Your task to perform on an android device: find which apps use the phone's location Image 0: 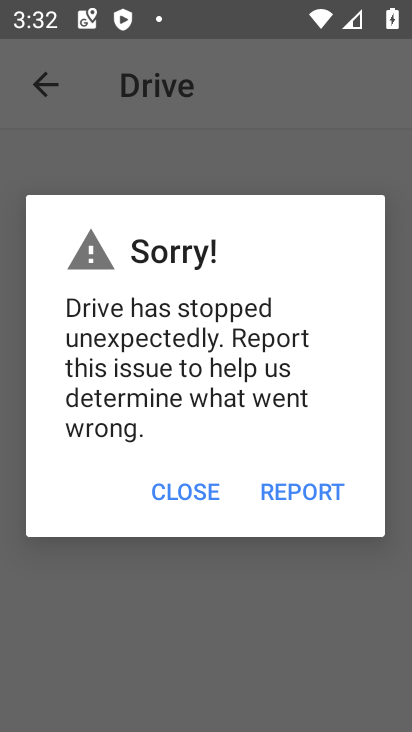
Step 0: press home button
Your task to perform on an android device: find which apps use the phone's location Image 1: 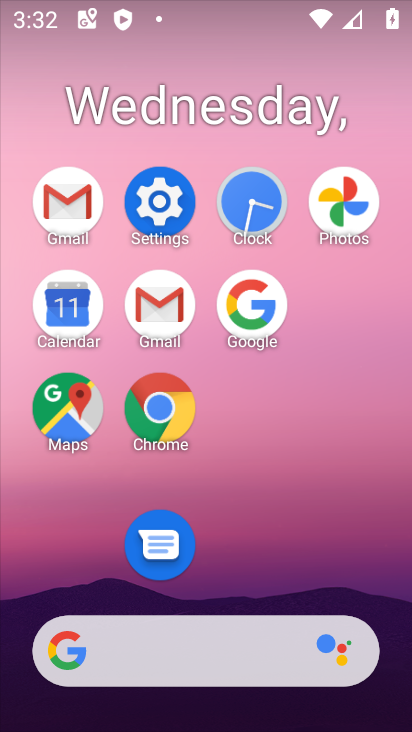
Step 1: click (157, 199)
Your task to perform on an android device: find which apps use the phone's location Image 2: 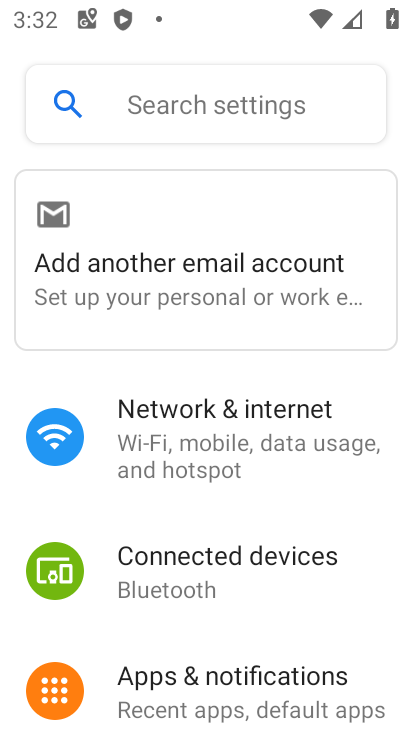
Step 2: drag from (229, 648) to (262, 132)
Your task to perform on an android device: find which apps use the phone's location Image 3: 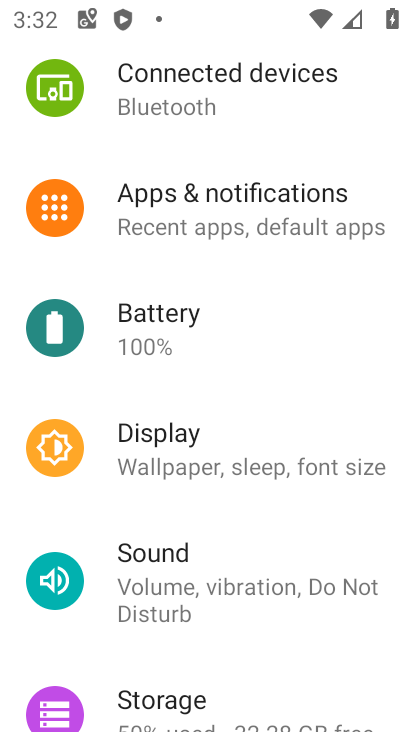
Step 3: drag from (224, 638) to (277, 195)
Your task to perform on an android device: find which apps use the phone's location Image 4: 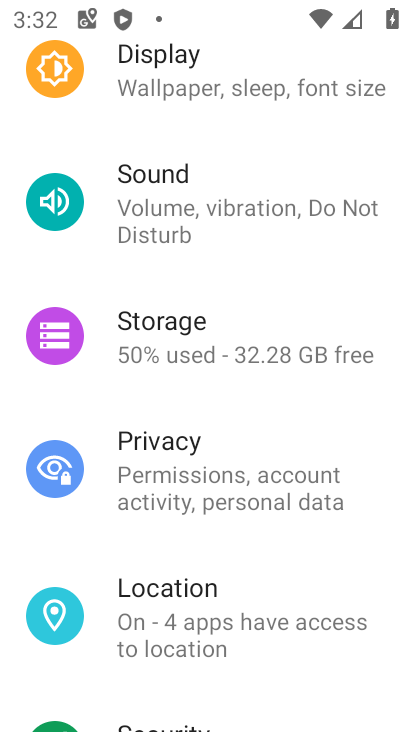
Step 4: drag from (209, 550) to (228, 179)
Your task to perform on an android device: find which apps use the phone's location Image 5: 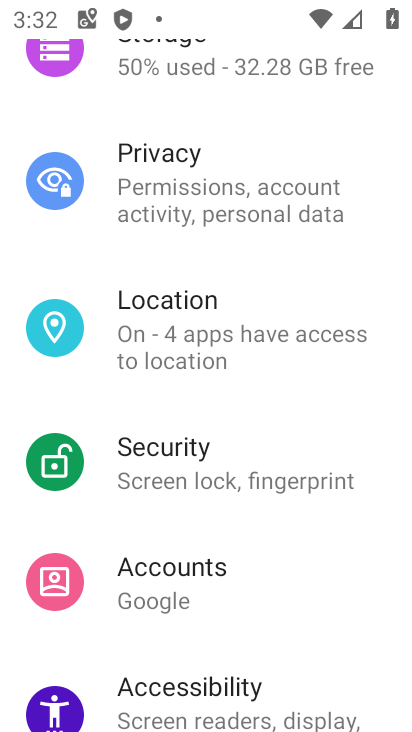
Step 5: click (207, 307)
Your task to perform on an android device: find which apps use the phone's location Image 6: 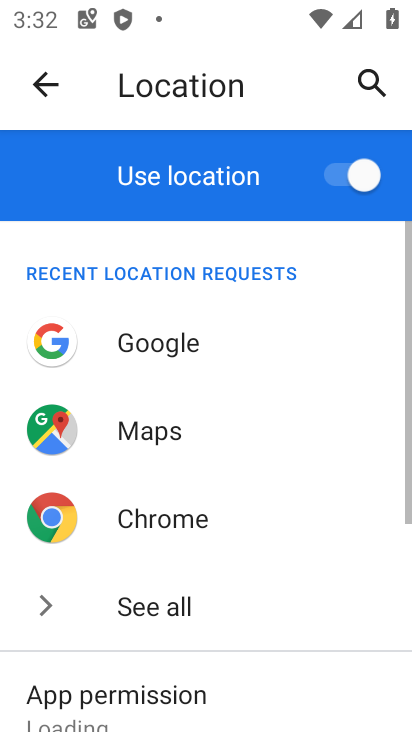
Step 6: task complete